Your task to perform on an android device: Do I have any events tomorrow? Image 0: 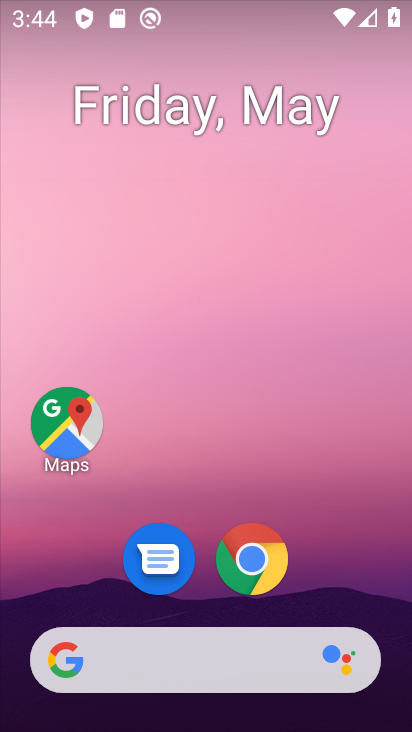
Step 0: drag from (316, 556) to (325, 192)
Your task to perform on an android device: Do I have any events tomorrow? Image 1: 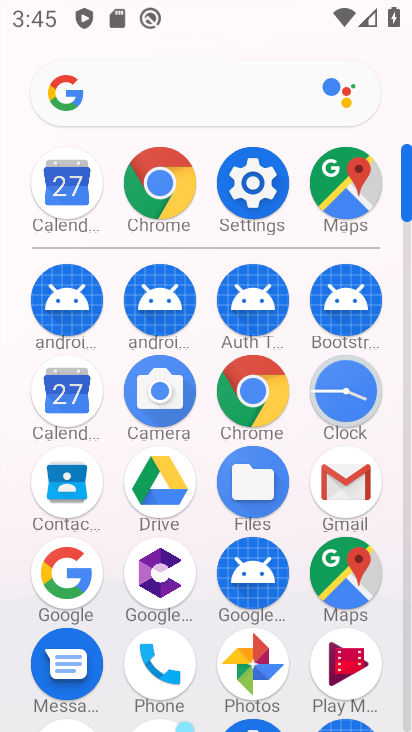
Step 1: click (65, 205)
Your task to perform on an android device: Do I have any events tomorrow? Image 2: 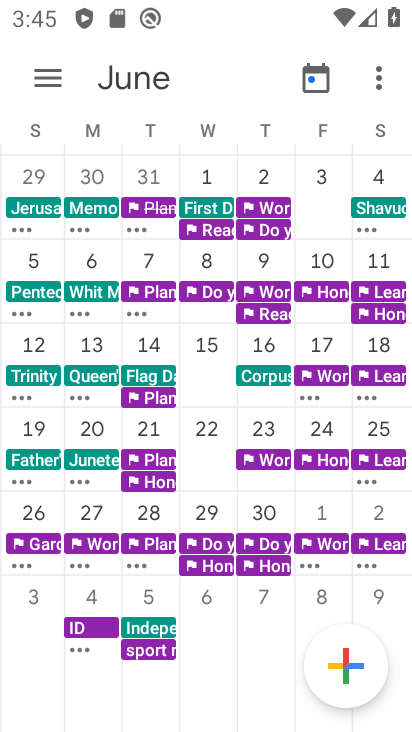
Step 2: click (49, 75)
Your task to perform on an android device: Do I have any events tomorrow? Image 3: 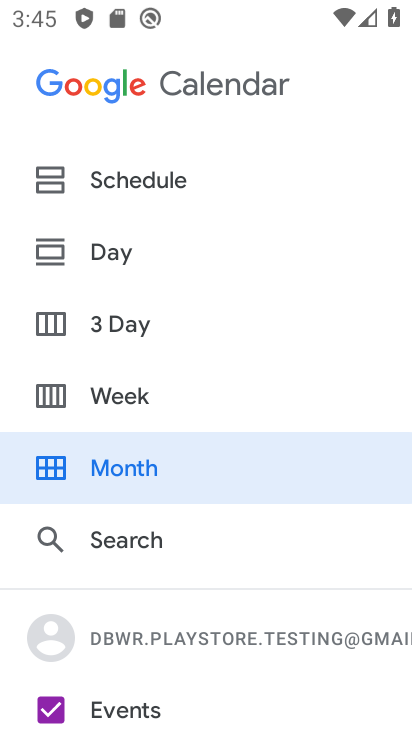
Step 3: click (171, 238)
Your task to perform on an android device: Do I have any events tomorrow? Image 4: 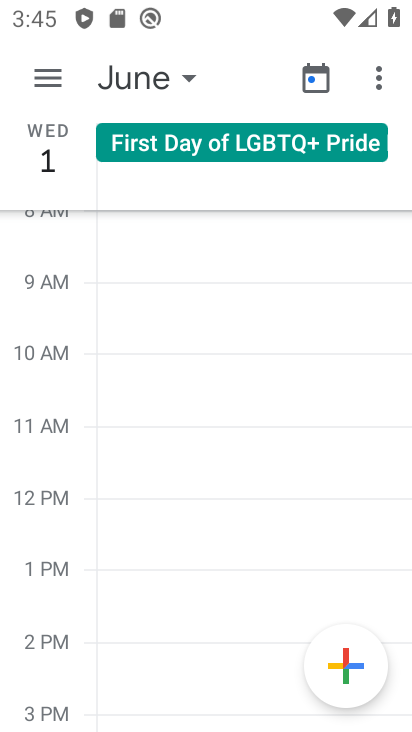
Step 4: drag from (147, 228) to (108, 673)
Your task to perform on an android device: Do I have any events tomorrow? Image 5: 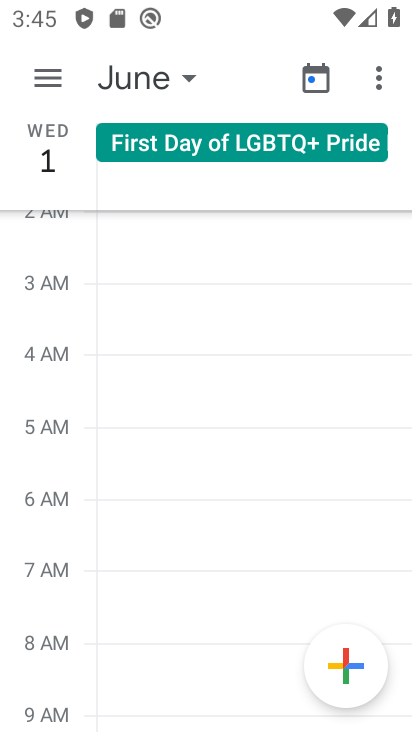
Step 5: click (173, 63)
Your task to perform on an android device: Do I have any events tomorrow? Image 6: 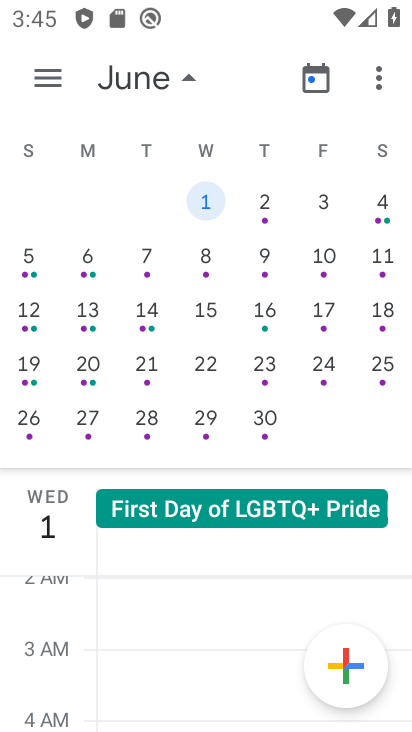
Step 6: drag from (101, 187) to (404, 199)
Your task to perform on an android device: Do I have any events tomorrow? Image 7: 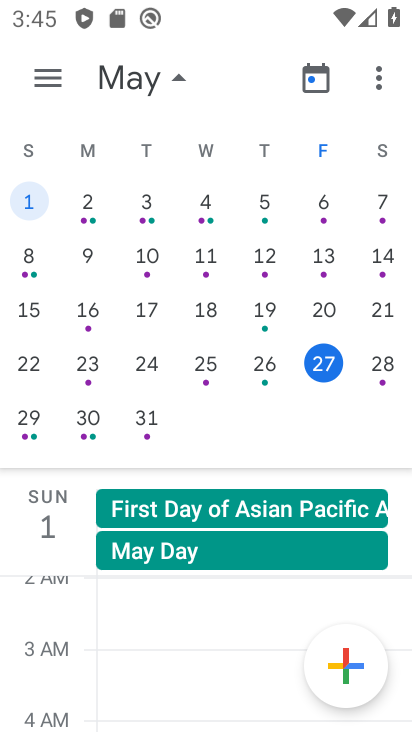
Step 7: click (379, 362)
Your task to perform on an android device: Do I have any events tomorrow? Image 8: 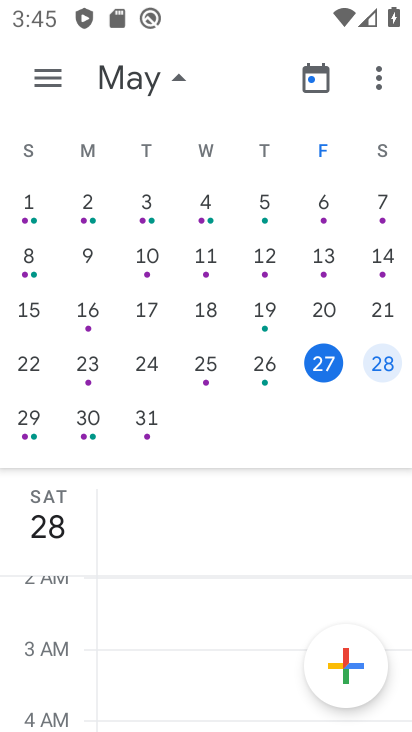
Step 8: click (188, 586)
Your task to perform on an android device: Do I have any events tomorrow? Image 9: 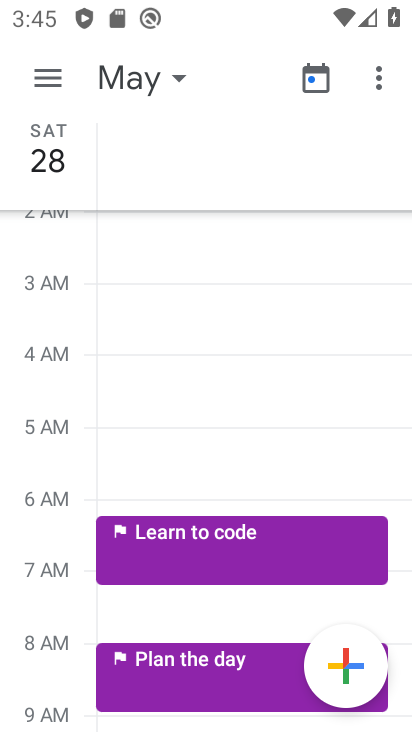
Step 9: task complete